Your task to perform on an android device: Go to ESPN.com Image 0: 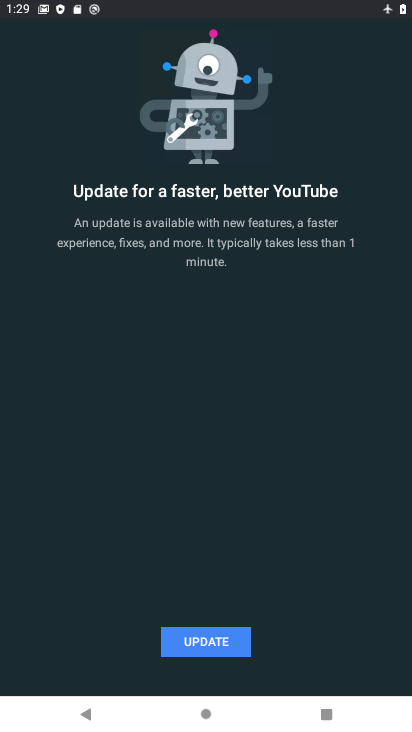
Step 0: press home button
Your task to perform on an android device: Go to ESPN.com Image 1: 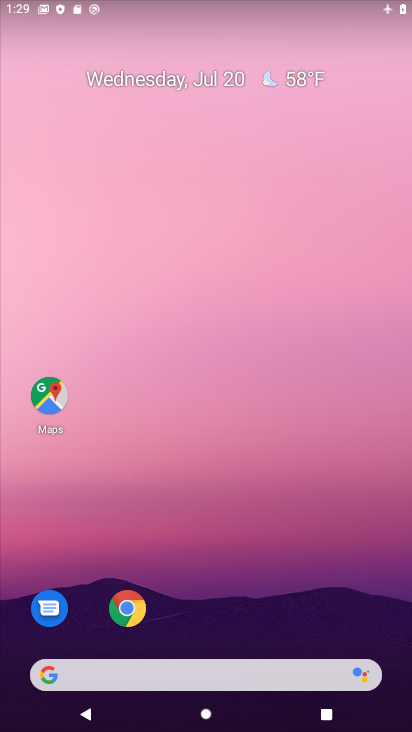
Step 1: drag from (231, 723) to (226, 175)
Your task to perform on an android device: Go to ESPN.com Image 2: 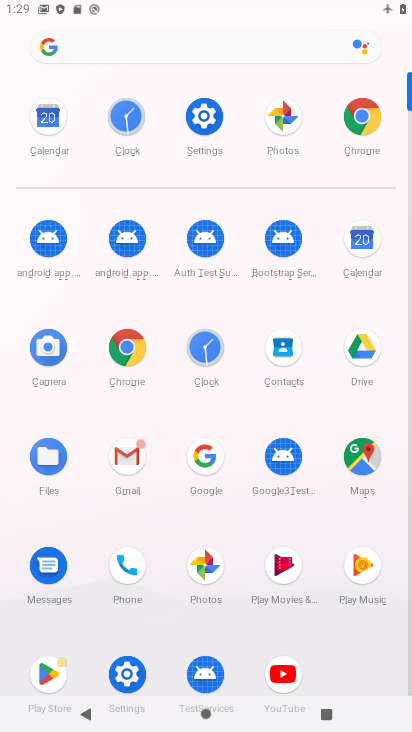
Step 2: click (363, 117)
Your task to perform on an android device: Go to ESPN.com Image 3: 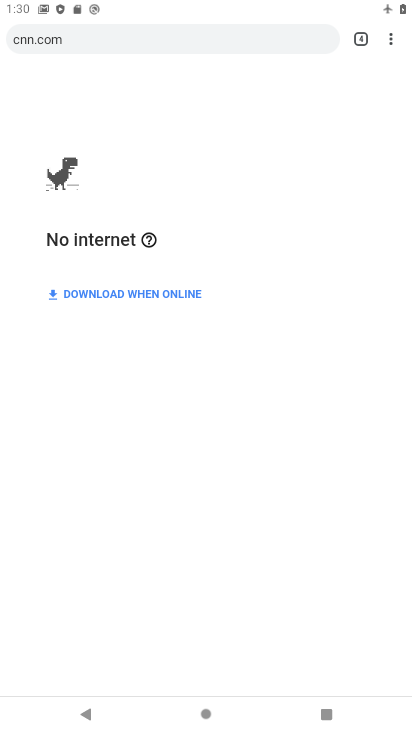
Step 3: task complete